Your task to perform on an android device: Go to Reddit.com Image 0: 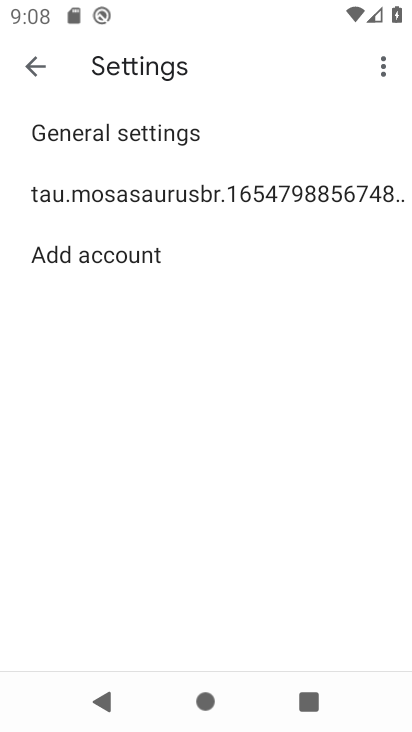
Step 0: press home button
Your task to perform on an android device: Go to Reddit.com Image 1: 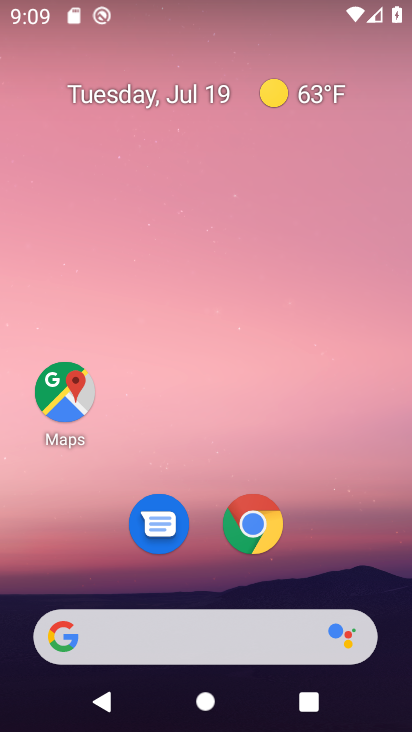
Step 1: click (265, 524)
Your task to perform on an android device: Go to Reddit.com Image 2: 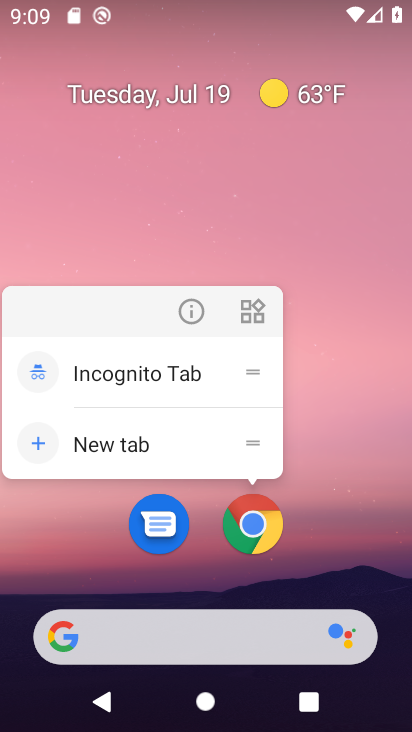
Step 2: click (257, 530)
Your task to perform on an android device: Go to Reddit.com Image 3: 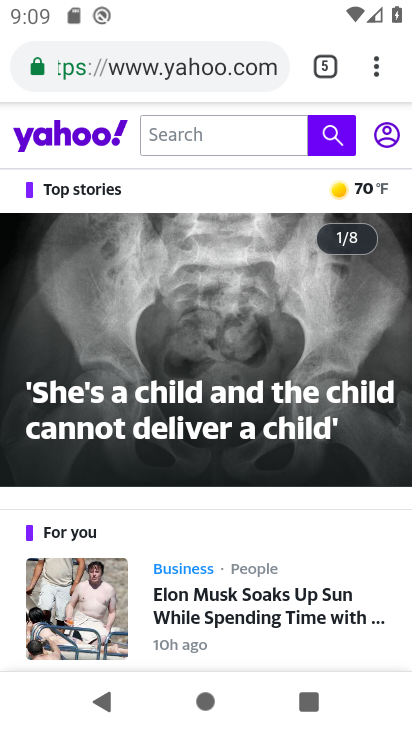
Step 3: drag from (374, 62) to (228, 137)
Your task to perform on an android device: Go to Reddit.com Image 4: 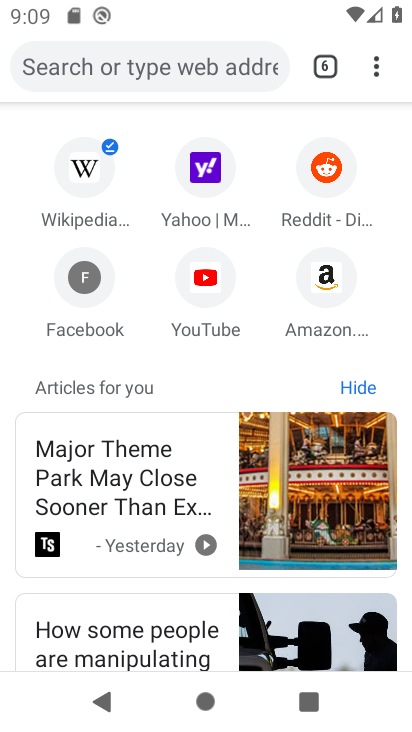
Step 4: click (317, 167)
Your task to perform on an android device: Go to Reddit.com Image 5: 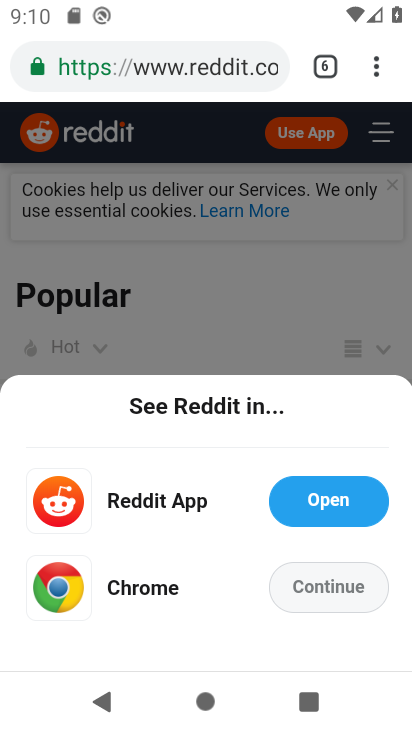
Step 5: task complete